Your task to perform on an android device: Go to internet settings Image 0: 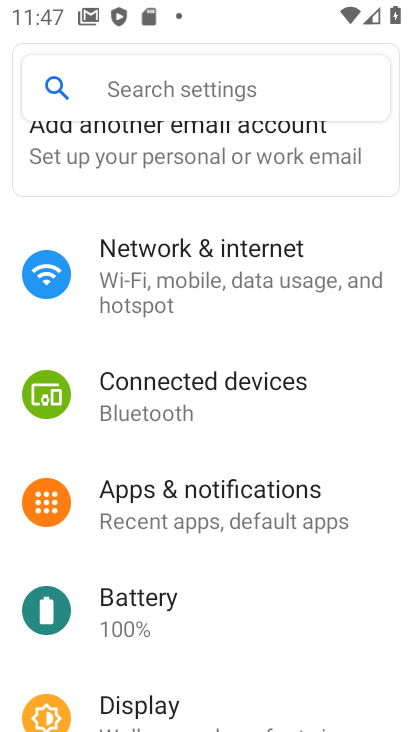
Step 0: click (161, 260)
Your task to perform on an android device: Go to internet settings Image 1: 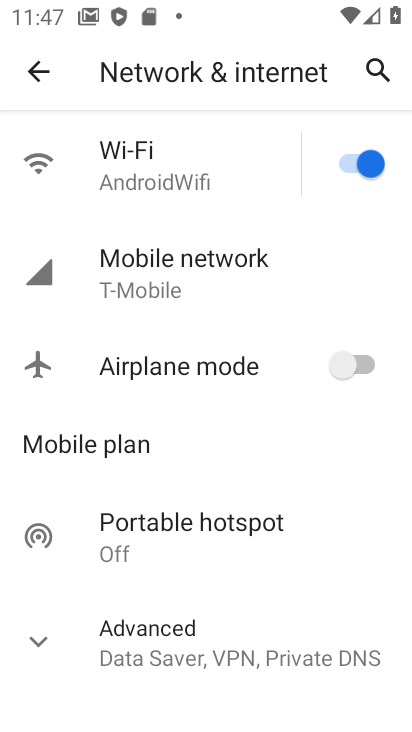
Step 1: click (123, 186)
Your task to perform on an android device: Go to internet settings Image 2: 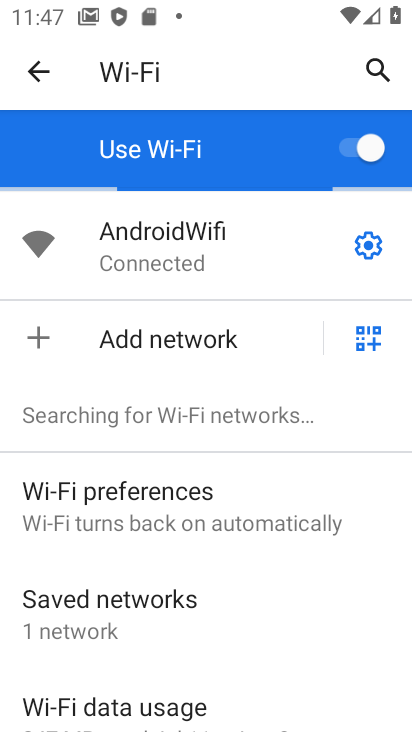
Step 2: task complete